Your task to perform on an android device: Turn off the flashlight Image 0: 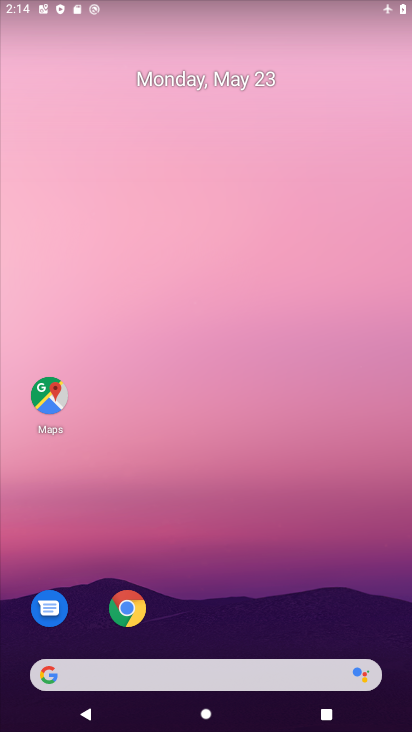
Step 0: drag from (244, 673) to (243, 161)
Your task to perform on an android device: Turn off the flashlight Image 1: 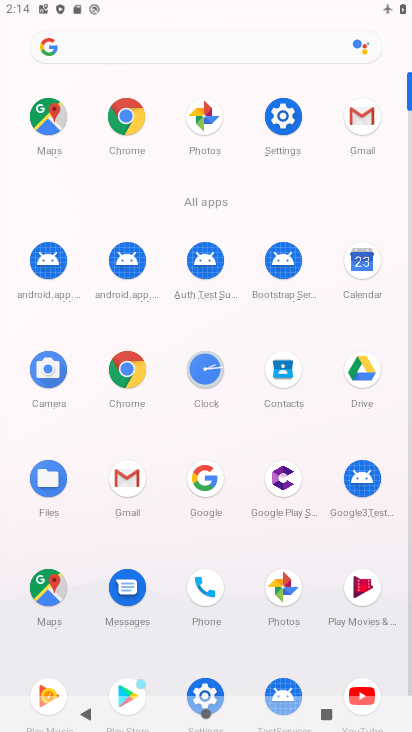
Step 1: click (301, 116)
Your task to perform on an android device: Turn off the flashlight Image 2: 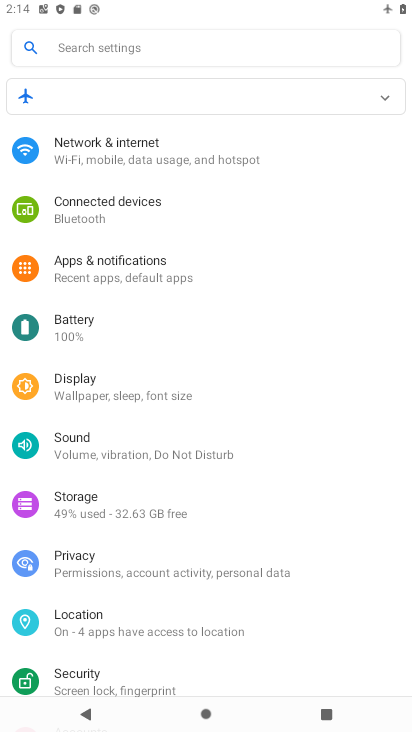
Step 2: click (75, 394)
Your task to perform on an android device: Turn off the flashlight Image 3: 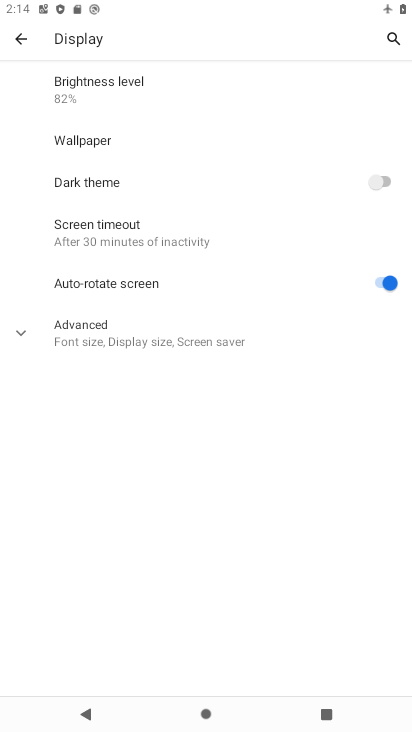
Step 3: click (83, 334)
Your task to perform on an android device: Turn off the flashlight Image 4: 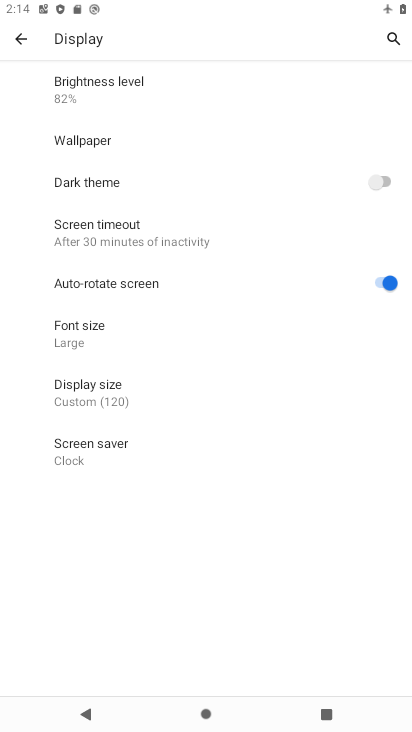
Step 4: task complete